Your task to perform on an android device: open sync settings in chrome Image 0: 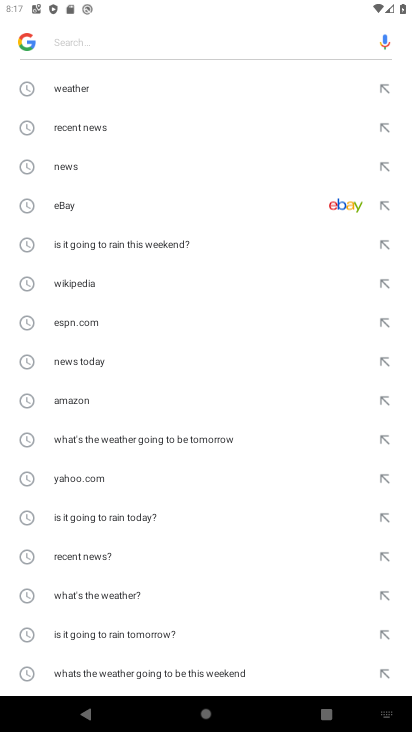
Step 0: press home button
Your task to perform on an android device: open sync settings in chrome Image 1: 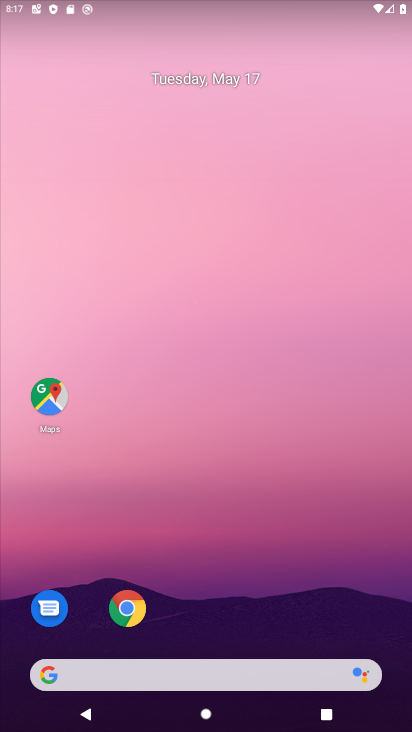
Step 1: click (127, 615)
Your task to perform on an android device: open sync settings in chrome Image 2: 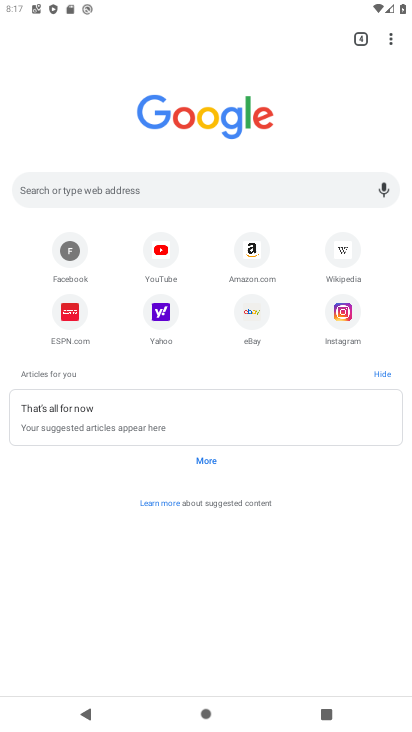
Step 2: click (387, 40)
Your task to perform on an android device: open sync settings in chrome Image 3: 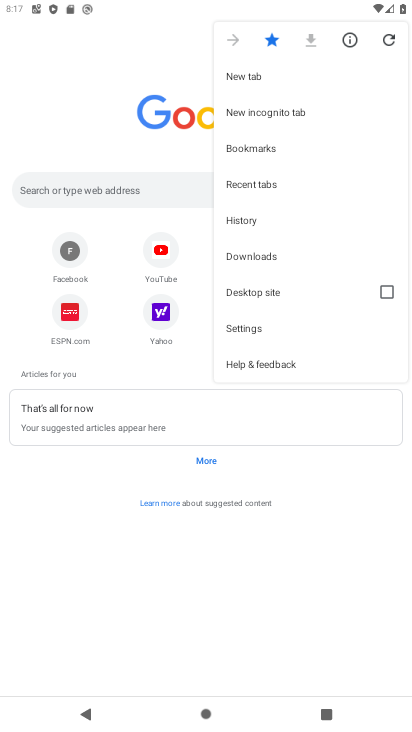
Step 3: click (240, 339)
Your task to perform on an android device: open sync settings in chrome Image 4: 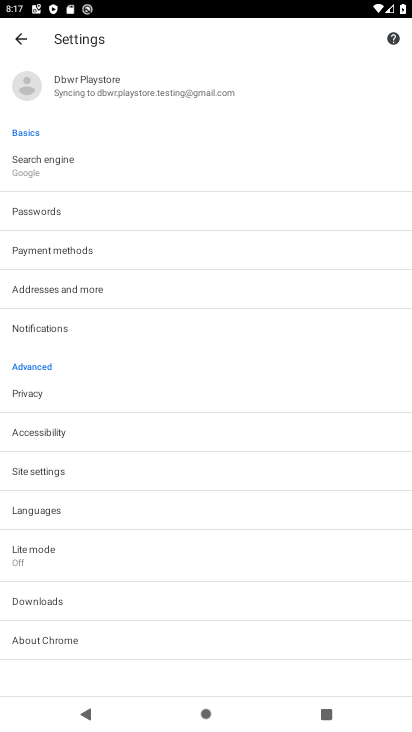
Step 4: click (221, 110)
Your task to perform on an android device: open sync settings in chrome Image 5: 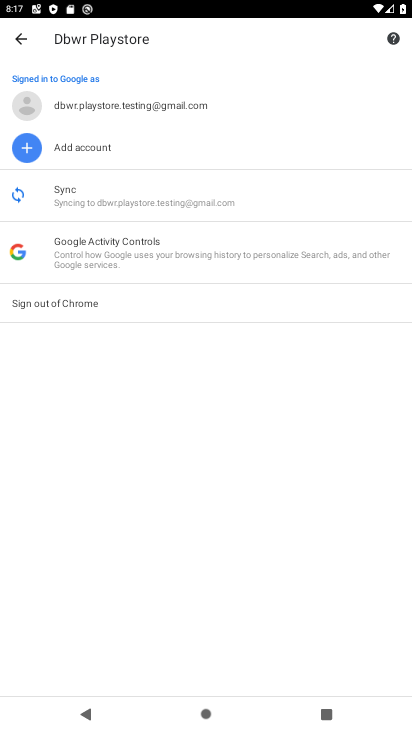
Step 5: click (107, 209)
Your task to perform on an android device: open sync settings in chrome Image 6: 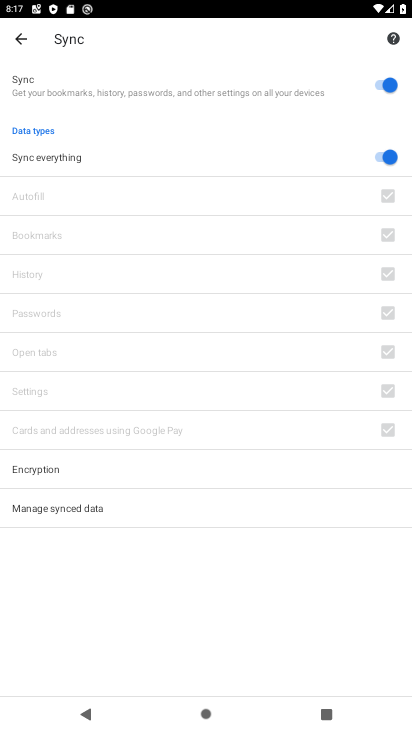
Step 6: task complete